Your task to perform on an android device: turn off sleep mode Image 0: 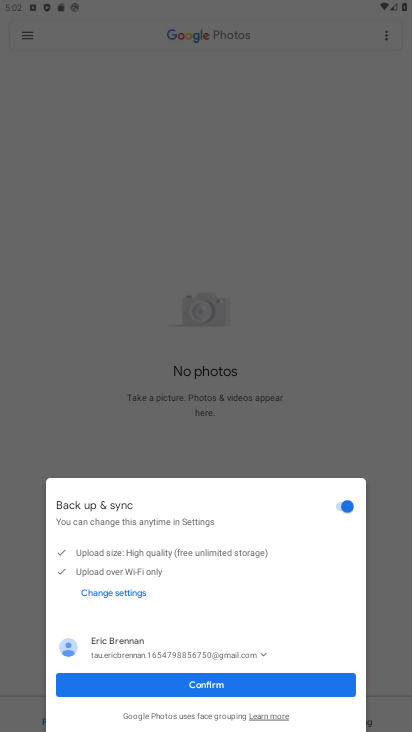
Step 0: drag from (312, 4) to (293, 722)
Your task to perform on an android device: turn off sleep mode Image 1: 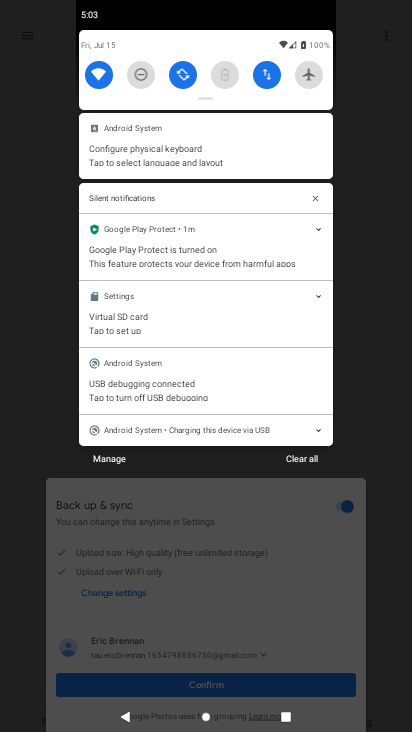
Step 1: drag from (205, 36) to (265, 704)
Your task to perform on an android device: turn off sleep mode Image 2: 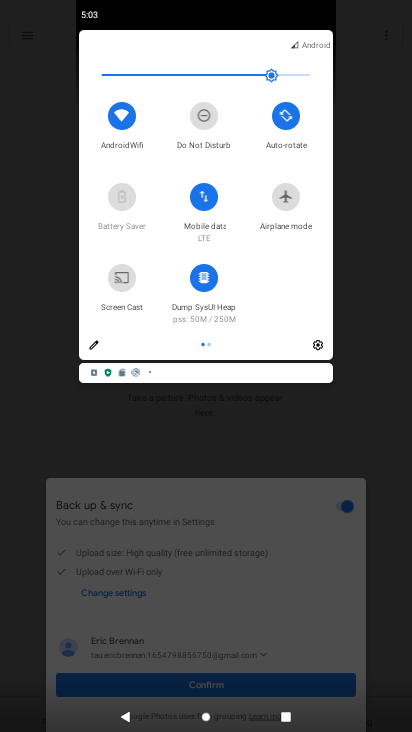
Step 2: click (320, 345)
Your task to perform on an android device: turn off sleep mode Image 3: 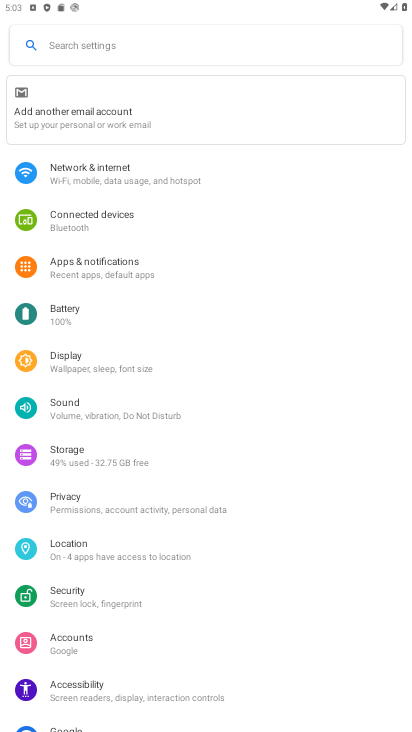
Step 3: task complete